Your task to perform on an android device: Open settings Image 0: 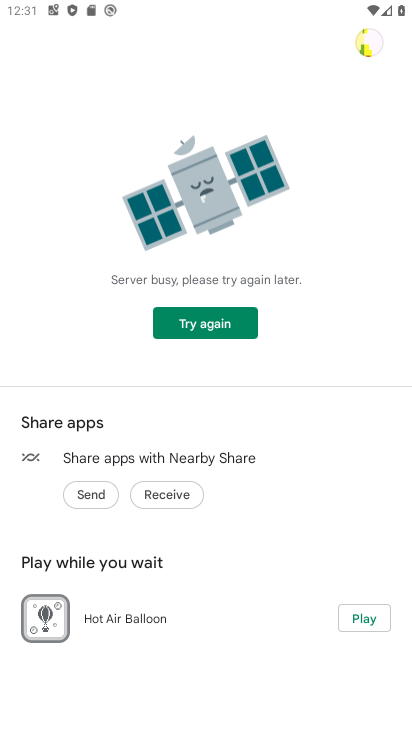
Step 0: press home button
Your task to perform on an android device: Open settings Image 1: 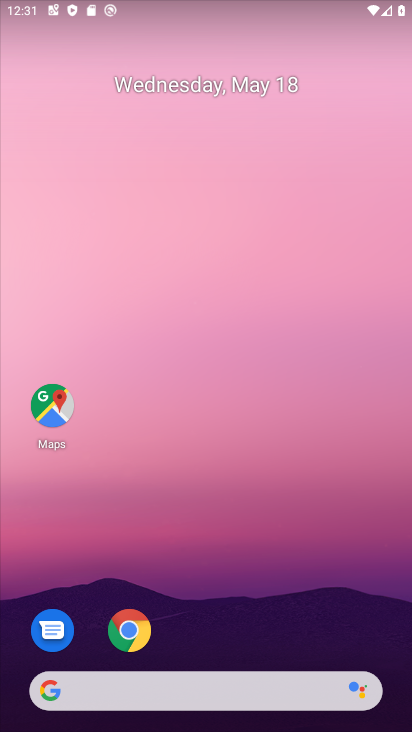
Step 1: drag from (179, 655) to (334, 68)
Your task to perform on an android device: Open settings Image 2: 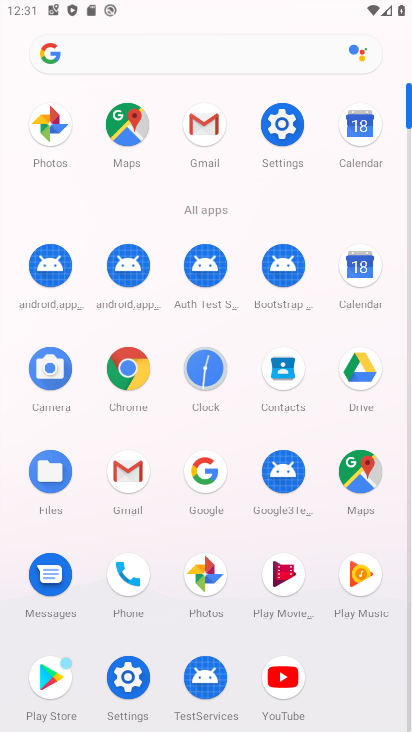
Step 2: click (128, 678)
Your task to perform on an android device: Open settings Image 3: 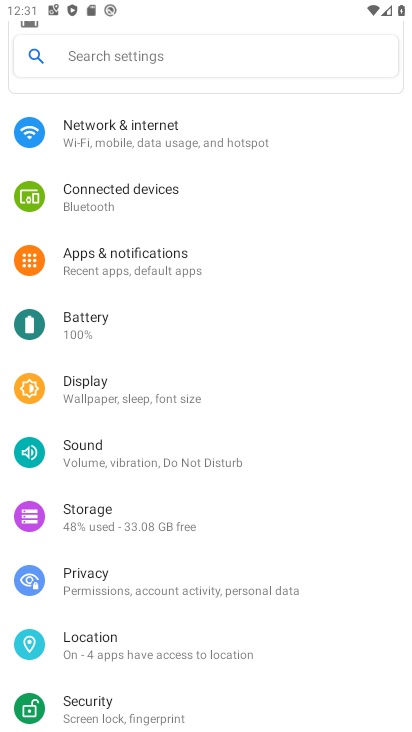
Step 3: task complete